Your task to perform on an android device: turn smart compose on in the gmail app Image 0: 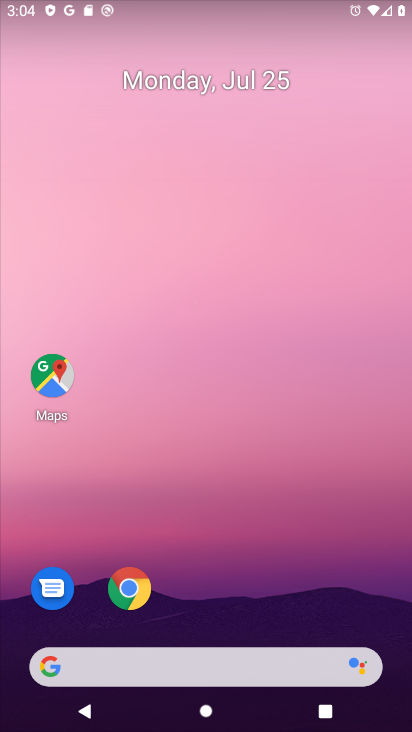
Step 0: drag from (227, 610) to (267, 11)
Your task to perform on an android device: turn smart compose on in the gmail app Image 1: 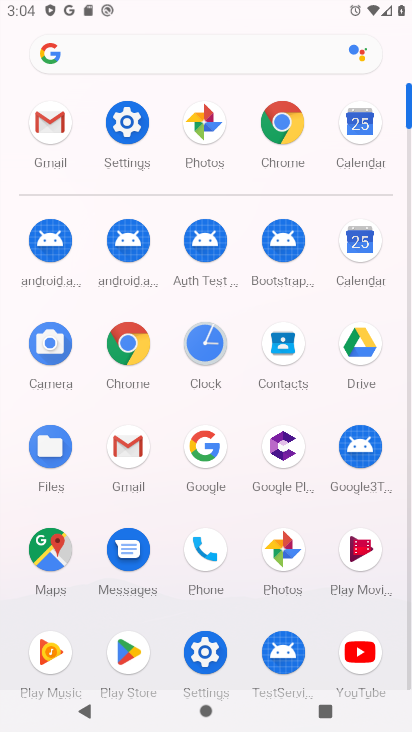
Step 1: click (134, 441)
Your task to perform on an android device: turn smart compose on in the gmail app Image 2: 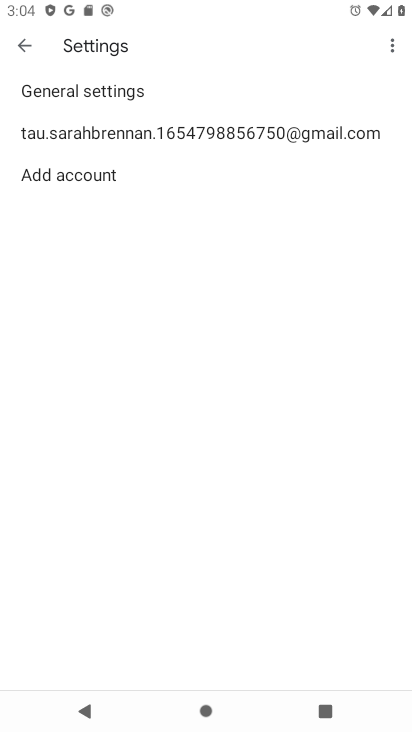
Step 2: click (91, 133)
Your task to perform on an android device: turn smart compose on in the gmail app Image 3: 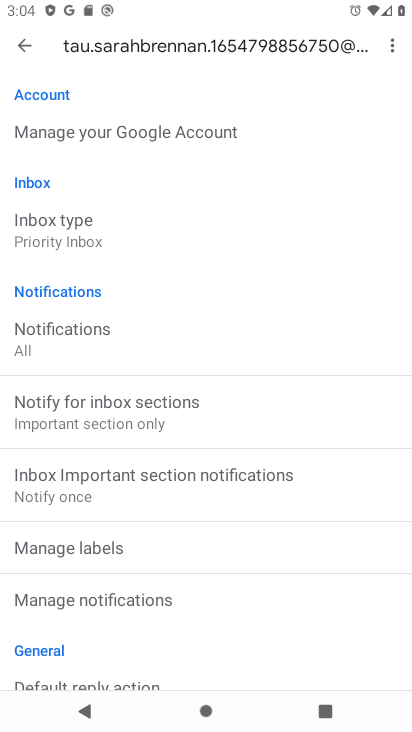
Step 3: task complete